Your task to perform on an android device: change the upload size in google photos Image 0: 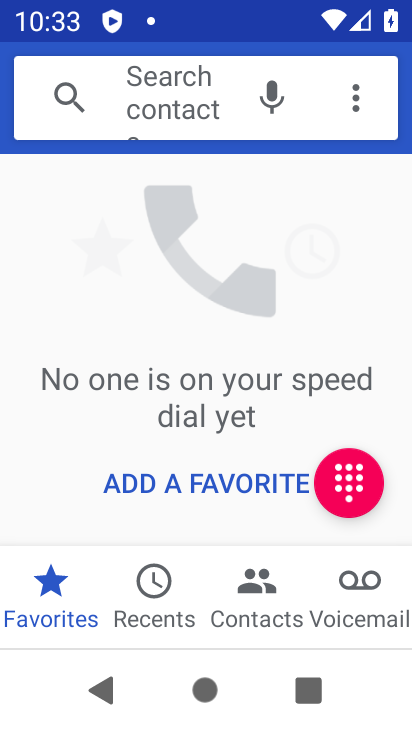
Step 0: press home button
Your task to perform on an android device: change the upload size in google photos Image 1: 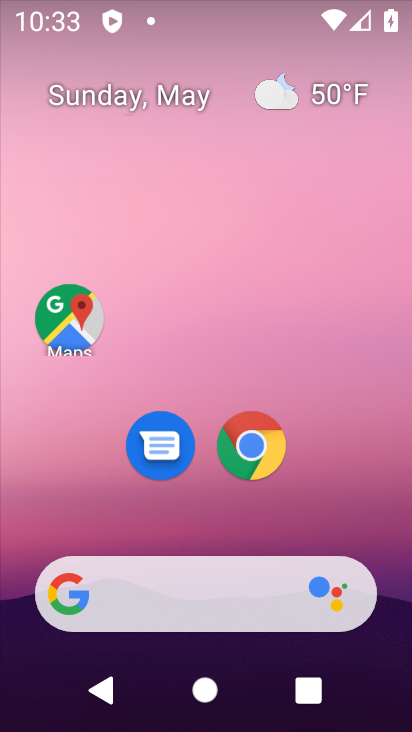
Step 1: drag from (233, 516) to (297, 3)
Your task to perform on an android device: change the upload size in google photos Image 2: 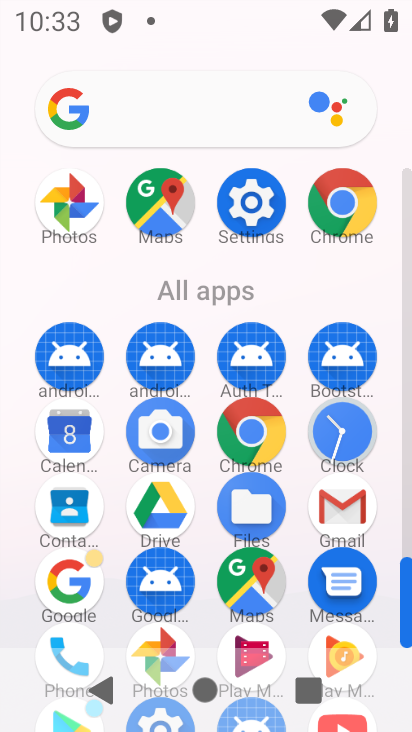
Step 2: drag from (215, 547) to (216, 160)
Your task to perform on an android device: change the upload size in google photos Image 3: 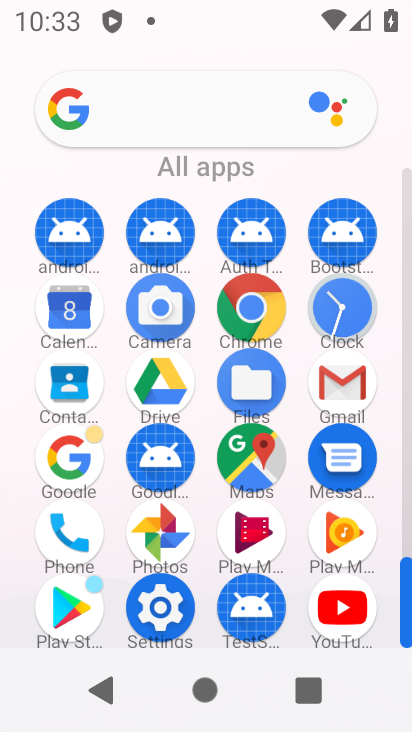
Step 3: click (158, 544)
Your task to perform on an android device: change the upload size in google photos Image 4: 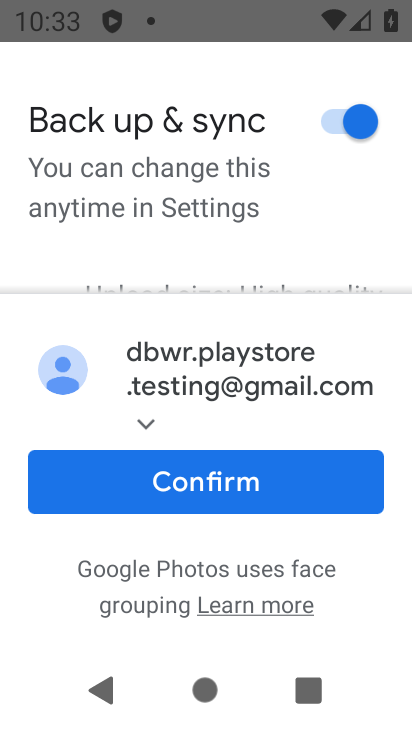
Step 4: click (191, 502)
Your task to perform on an android device: change the upload size in google photos Image 5: 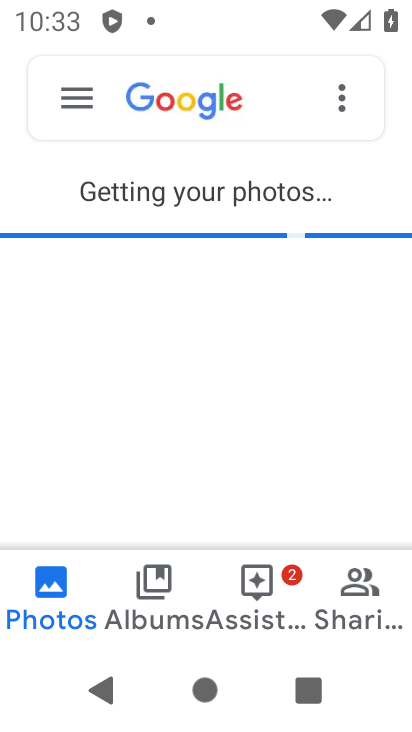
Step 5: click (81, 99)
Your task to perform on an android device: change the upload size in google photos Image 6: 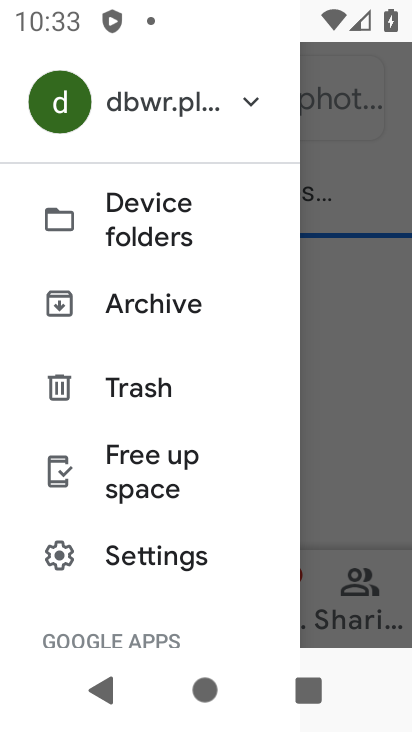
Step 6: click (166, 552)
Your task to perform on an android device: change the upload size in google photos Image 7: 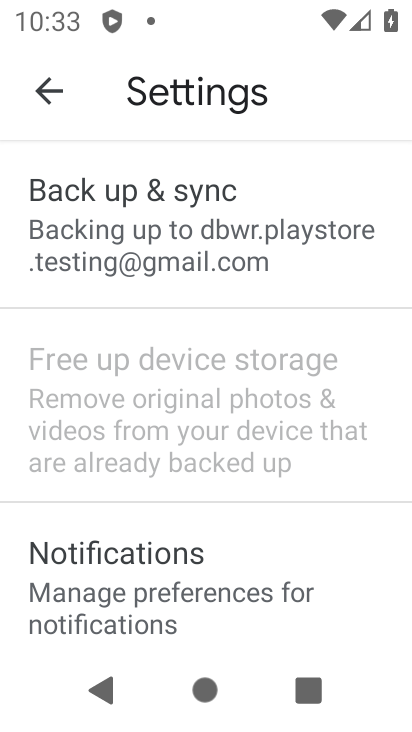
Step 7: click (251, 231)
Your task to perform on an android device: change the upload size in google photos Image 8: 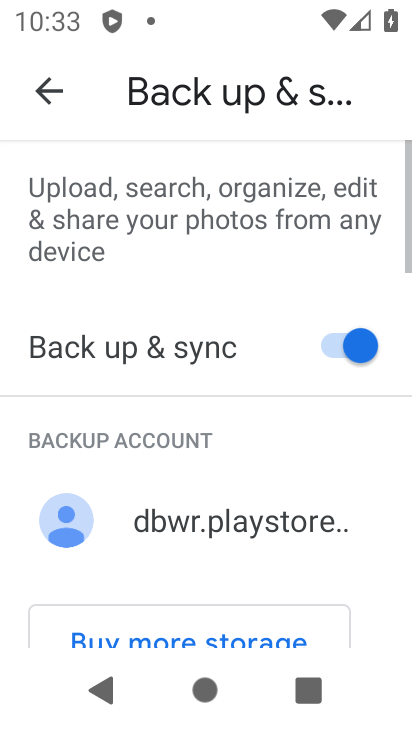
Step 8: drag from (251, 578) to (302, 229)
Your task to perform on an android device: change the upload size in google photos Image 9: 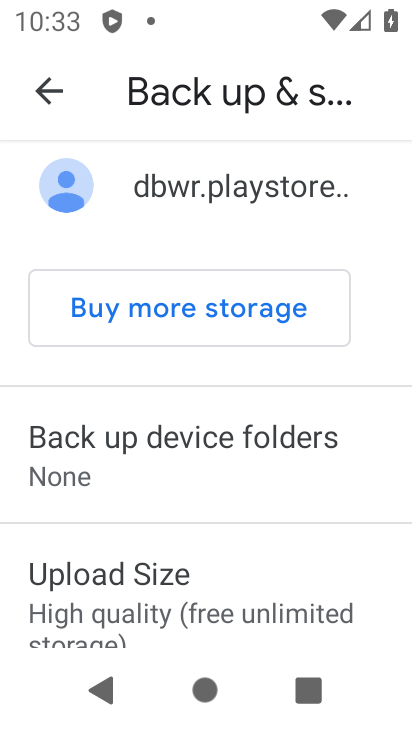
Step 9: click (264, 575)
Your task to perform on an android device: change the upload size in google photos Image 10: 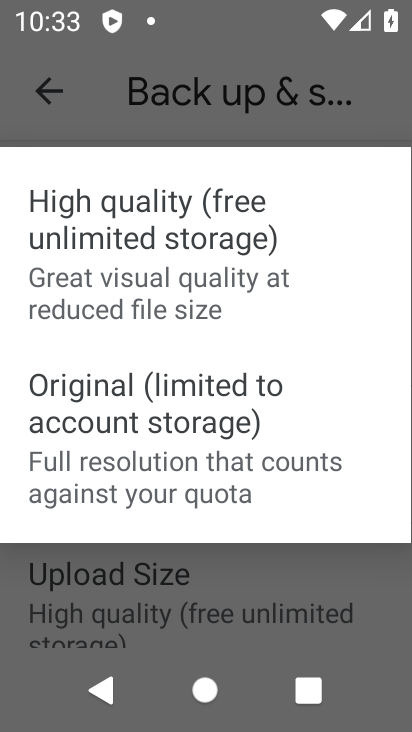
Step 10: click (232, 413)
Your task to perform on an android device: change the upload size in google photos Image 11: 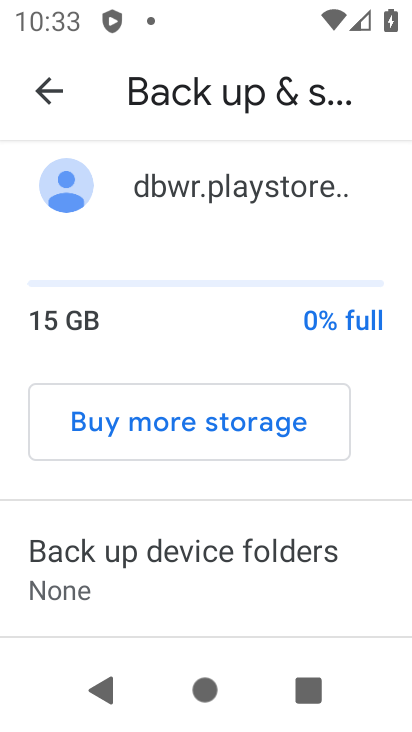
Step 11: task complete